Your task to perform on an android device: Open eBay Image 0: 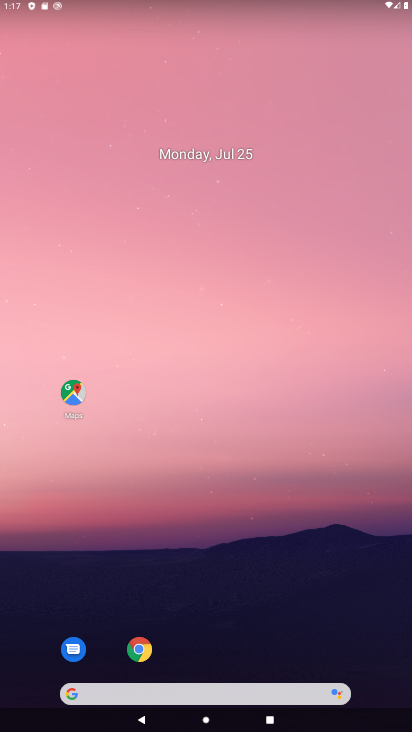
Step 0: click (276, 692)
Your task to perform on an android device: Open eBay Image 1: 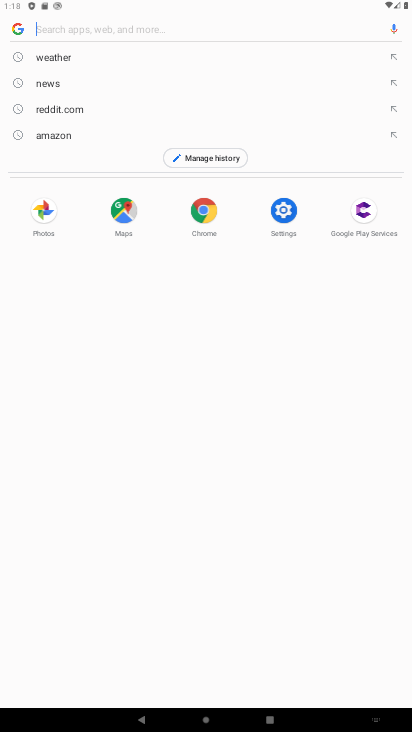
Step 1: type "ebay"
Your task to perform on an android device: Open eBay Image 2: 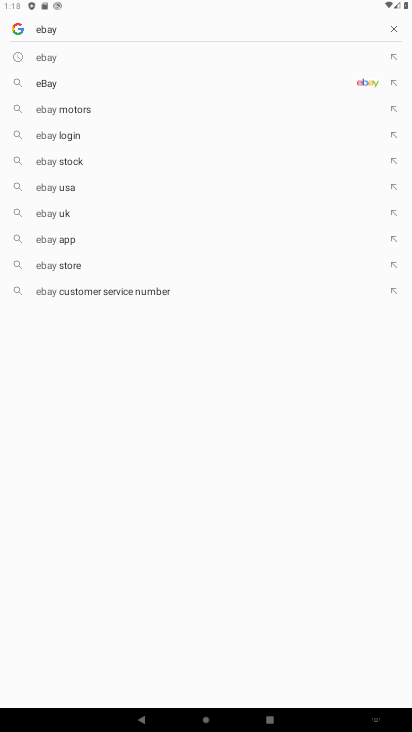
Step 2: click (354, 78)
Your task to perform on an android device: Open eBay Image 3: 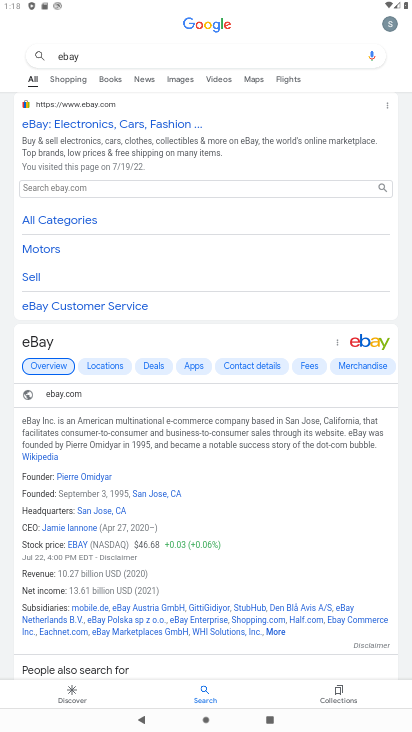
Step 3: click (75, 119)
Your task to perform on an android device: Open eBay Image 4: 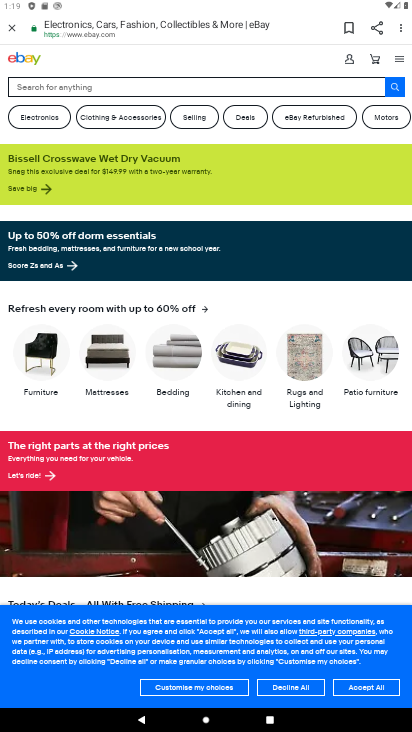
Step 4: task complete